Your task to perform on an android device: open chrome and create a bookmark for the current page Image 0: 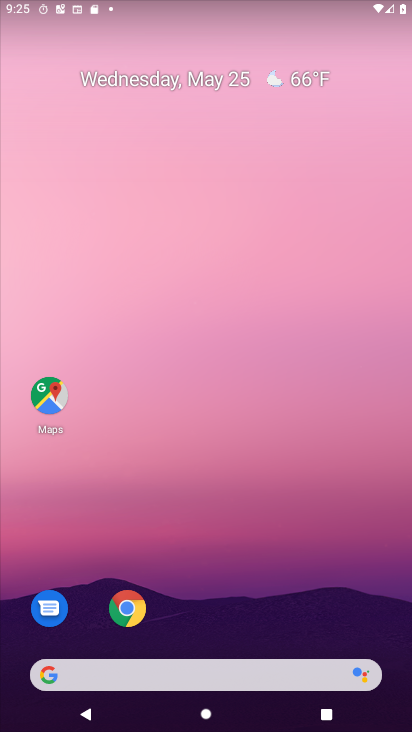
Step 0: drag from (230, 722) to (236, 146)
Your task to perform on an android device: open chrome and create a bookmark for the current page Image 1: 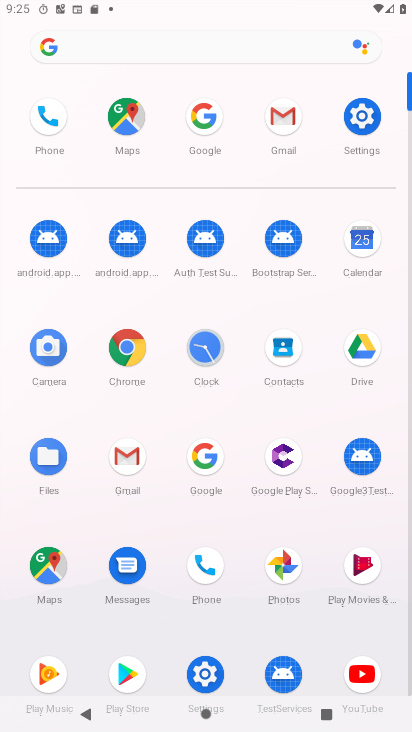
Step 1: click (128, 356)
Your task to perform on an android device: open chrome and create a bookmark for the current page Image 2: 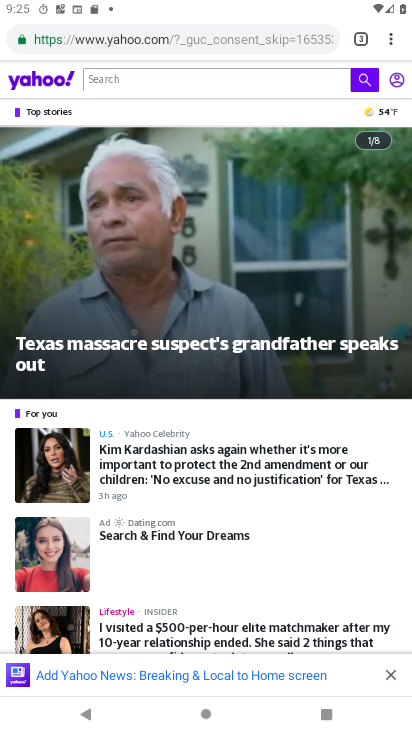
Step 2: click (393, 47)
Your task to perform on an android device: open chrome and create a bookmark for the current page Image 3: 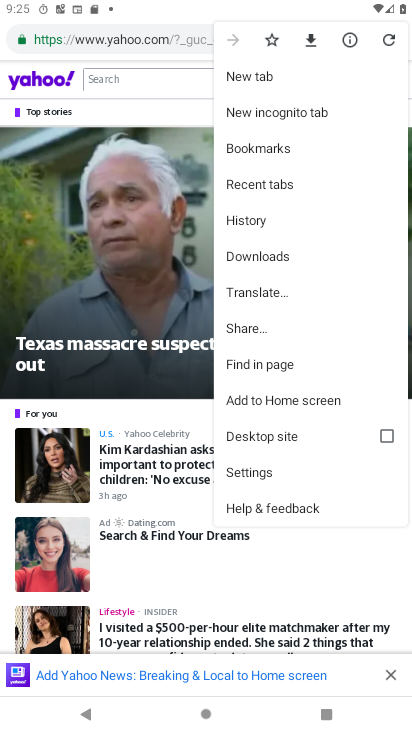
Step 3: click (271, 36)
Your task to perform on an android device: open chrome and create a bookmark for the current page Image 4: 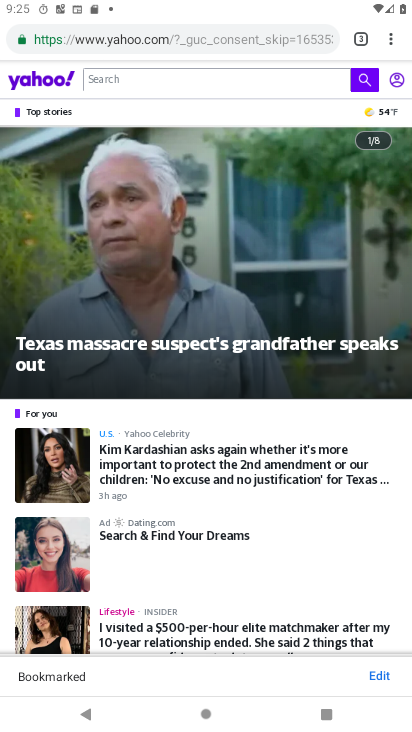
Step 4: task complete